Your task to perform on an android device: Open Reddit.com Image 0: 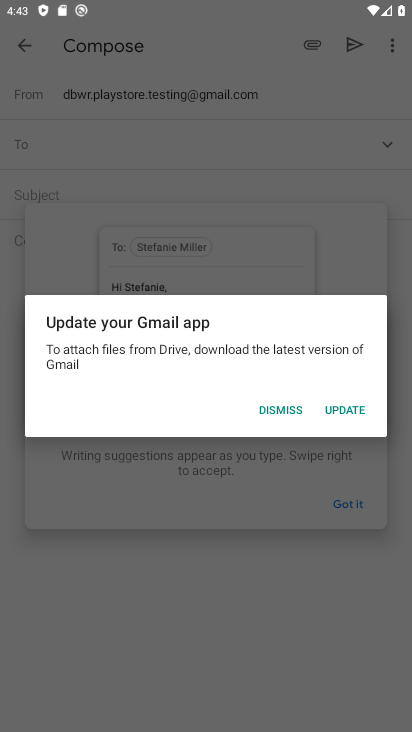
Step 0: press home button
Your task to perform on an android device: Open Reddit.com Image 1: 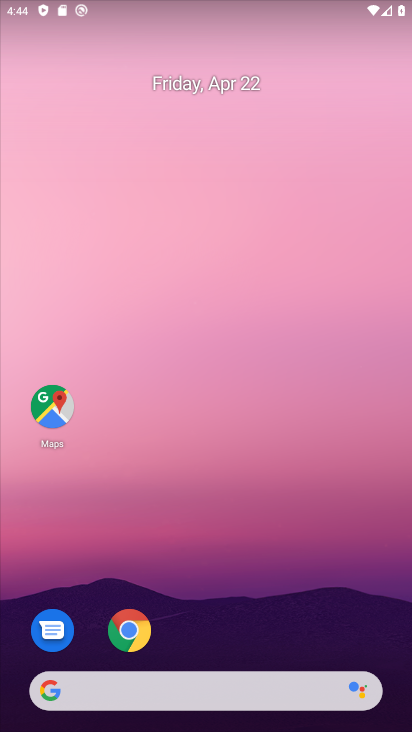
Step 1: drag from (226, 552) to (216, 30)
Your task to perform on an android device: Open Reddit.com Image 2: 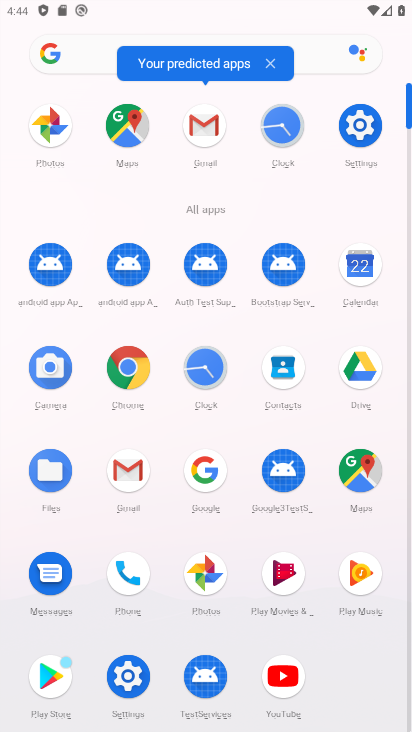
Step 2: drag from (3, 541) to (0, 307)
Your task to perform on an android device: Open Reddit.com Image 3: 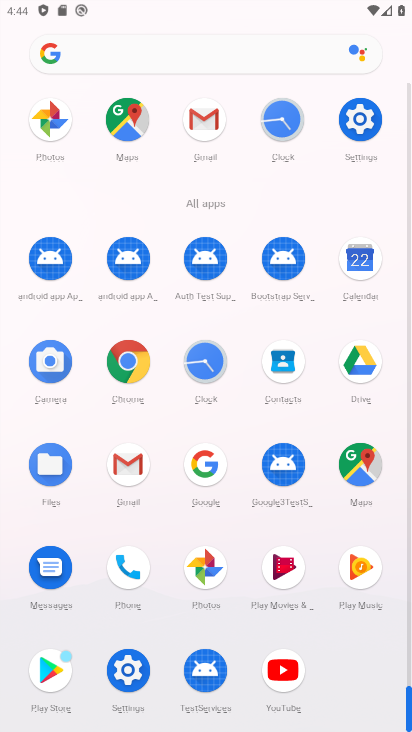
Step 3: click (128, 358)
Your task to perform on an android device: Open Reddit.com Image 4: 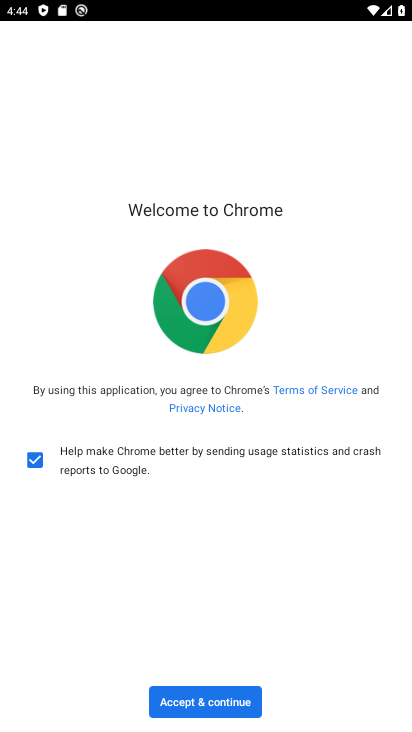
Step 4: click (197, 706)
Your task to perform on an android device: Open Reddit.com Image 5: 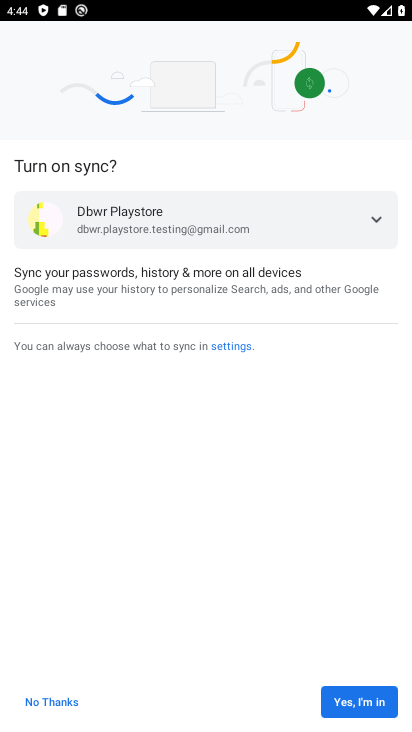
Step 5: click (385, 706)
Your task to perform on an android device: Open Reddit.com Image 6: 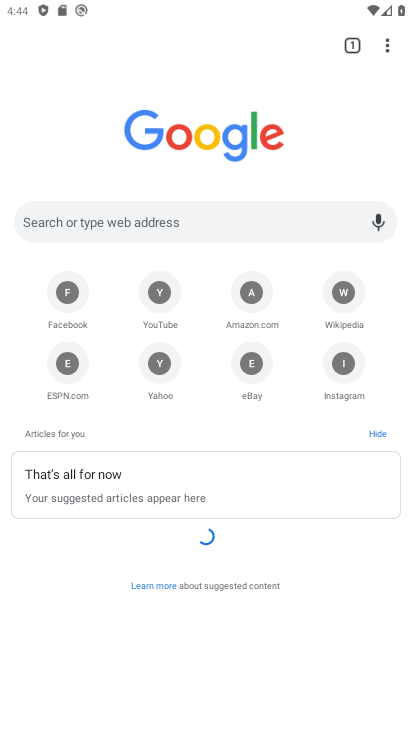
Step 6: click (144, 218)
Your task to perform on an android device: Open Reddit.com Image 7: 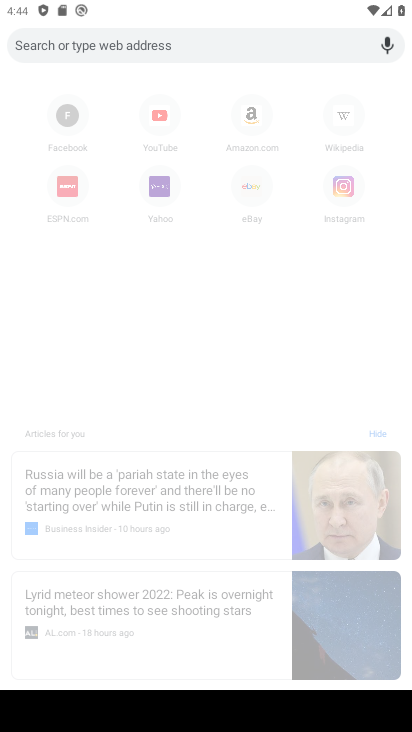
Step 7: type "Reddit.com"
Your task to perform on an android device: Open Reddit.com Image 8: 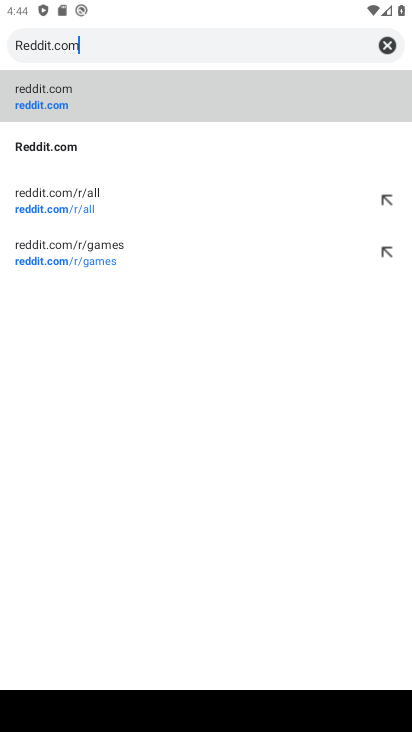
Step 8: click (176, 93)
Your task to perform on an android device: Open Reddit.com Image 9: 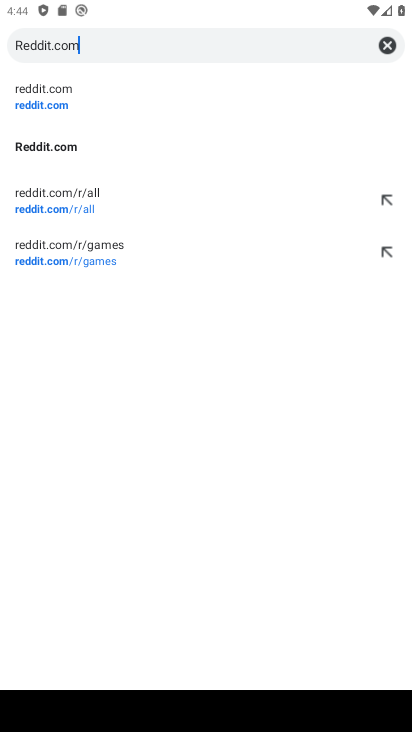
Step 9: click (68, 101)
Your task to perform on an android device: Open Reddit.com Image 10: 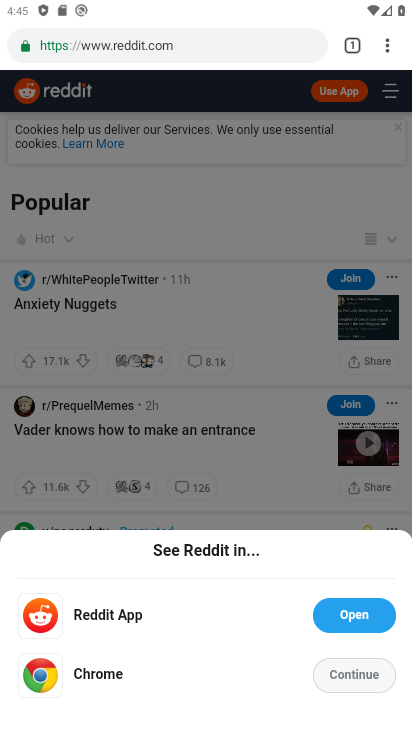
Step 10: task complete